Your task to perform on an android device: Open Amazon Image 0: 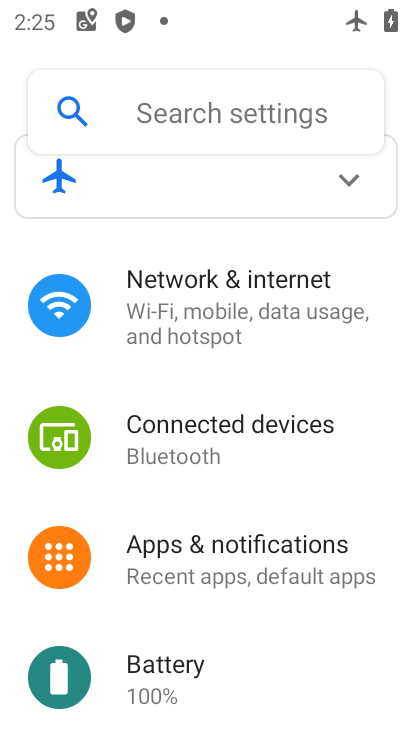
Step 0: press home button
Your task to perform on an android device: Open Amazon Image 1: 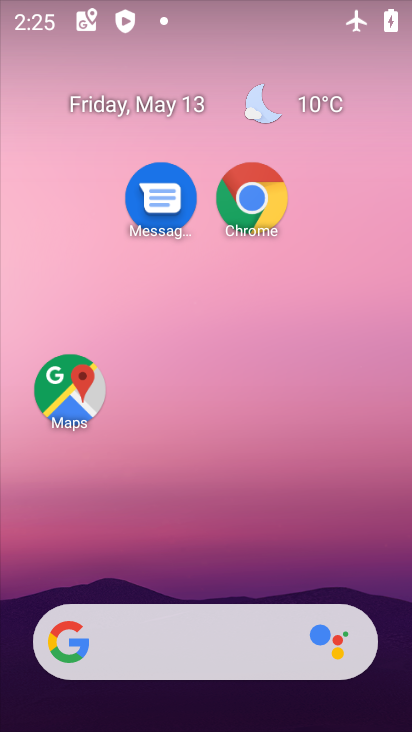
Step 1: click (250, 215)
Your task to perform on an android device: Open Amazon Image 2: 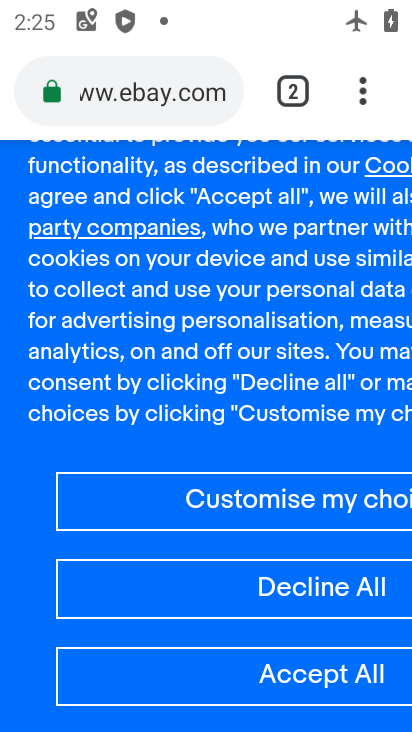
Step 2: click (267, 105)
Your task to perform on an android device: Open Amazon Image 3: 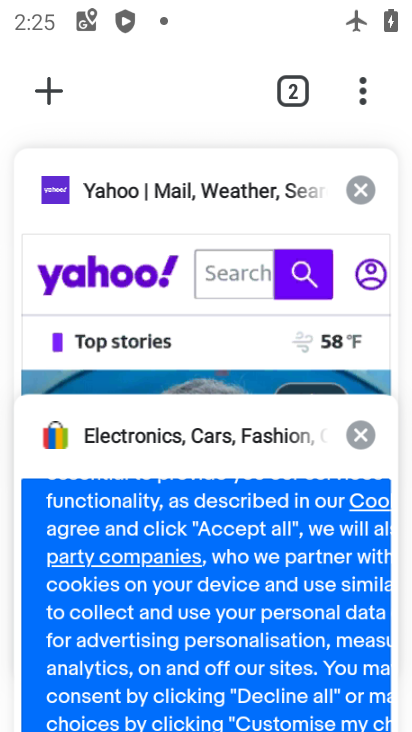
Step 3: click (39, 86)
Your task to perform on an android device: Open Amazon Image 4: 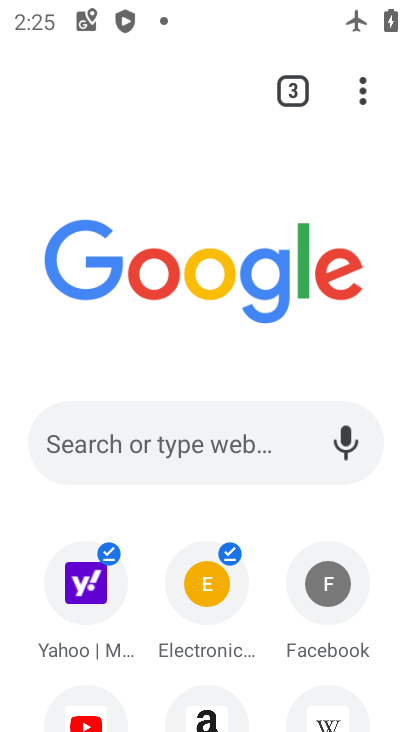
Step 4: click (203, 695)
Your task to perform on an android device: Open Amazon Image 5: 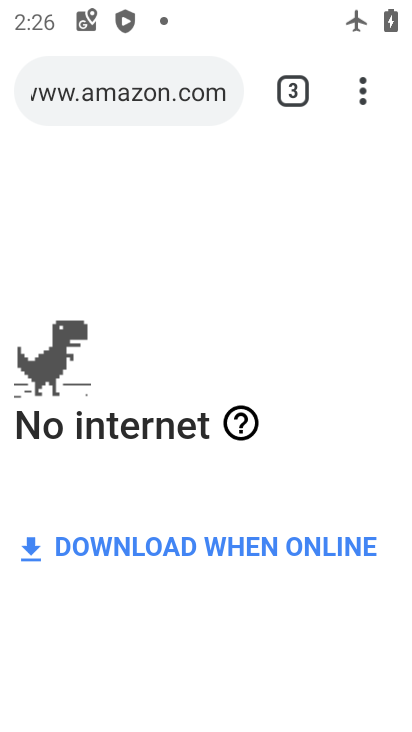
Step 5: task complete